Your task to perform on an android device: turn on javascript in the chrome app Image 0: 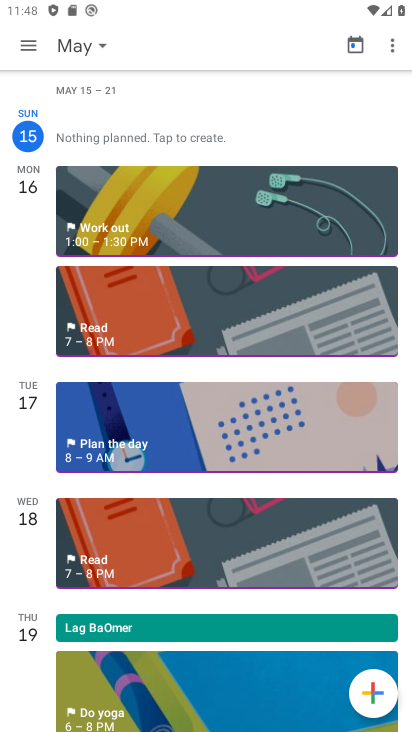
Step 0: press home button
Your task to perform on an android device: turn on javascript in the chrome app Image 1: 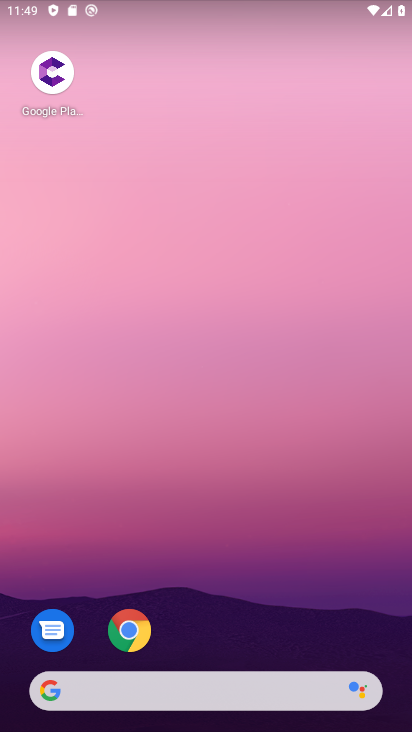
Step 1: click (135, 617)
Your task to perform on an android device: turn on javascript in the chrome app Image 2: 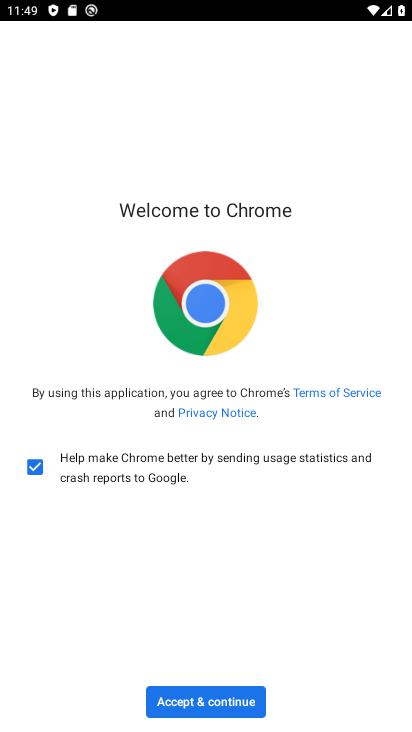
Step 2: click (240, 701)
Your task to perform on an android device: turn on javascript in the chrome app Image 3: 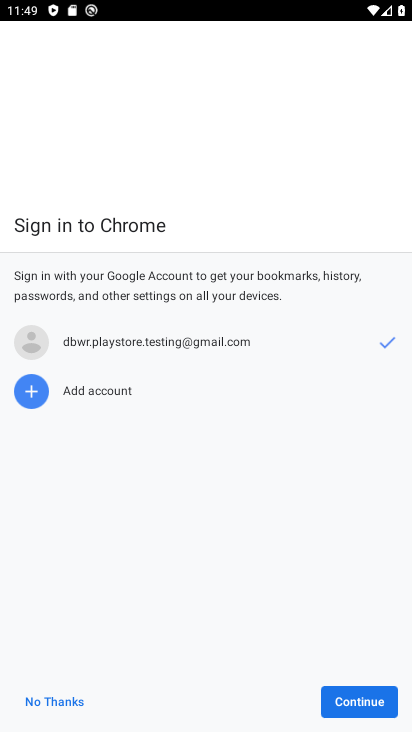
Step 3: click (361, 700)
Your task to perform on an android device: turn on javascript in the chrome app Image 4: 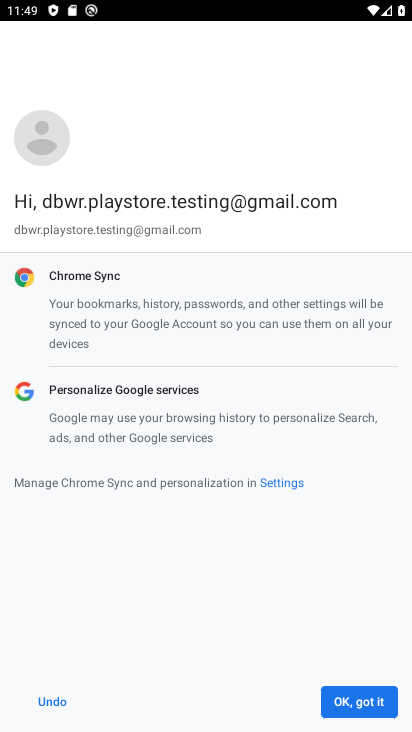
Step 4: click (361, 700)
Your task to perform on an android device: turn on javascript in the chrome app Image 5: 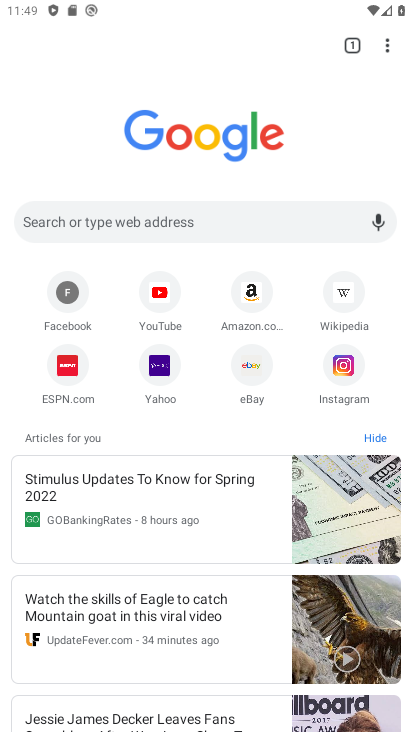
Step 5: click (388, 42)
Your task to perform on an android device: turn on javascript in the chrome app Image 6: 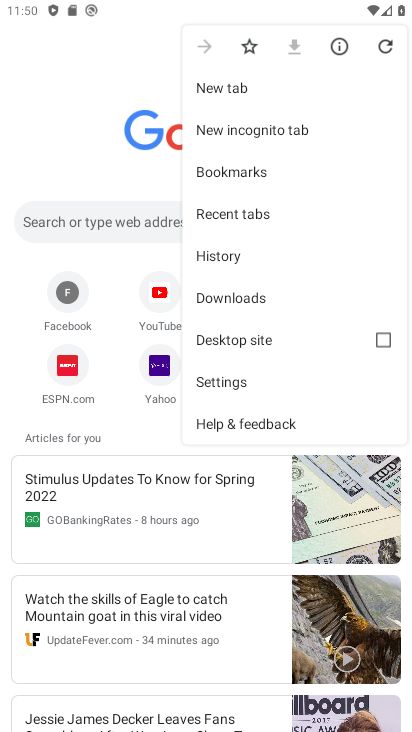
Step 6: drag from (290, 408) to (269, 128)
Your task to perform on an android device: turn on javascript in the chrome app Image 7: 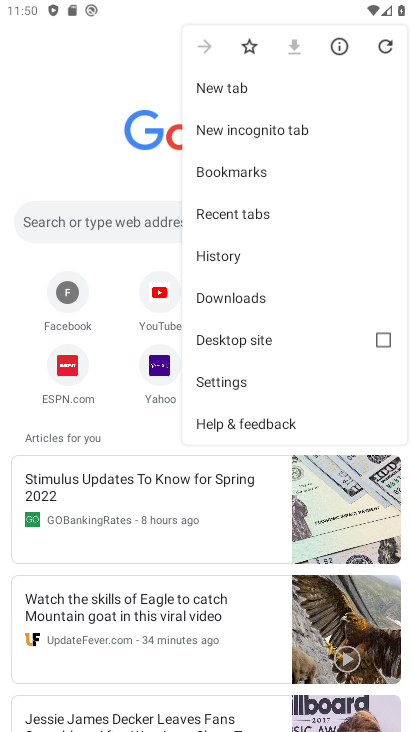
Step 7: click (248, 372)
Your task to perform on an android device: turn on javascript in the chrome app Image 8: 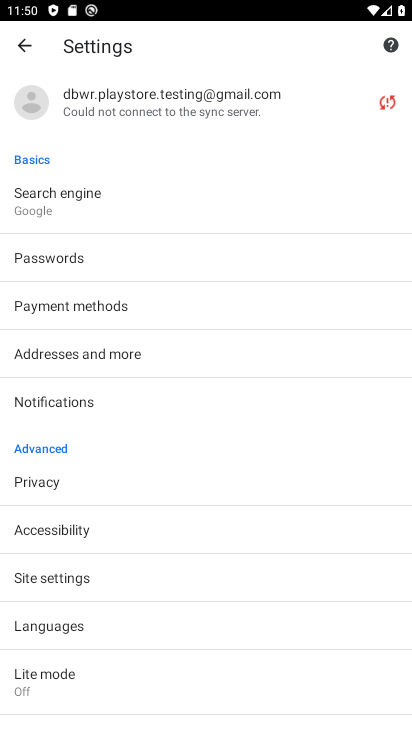
Step 8: click (222, 584)
Your task to perform on an android device: turn on javascript in the chrome app Image 9: 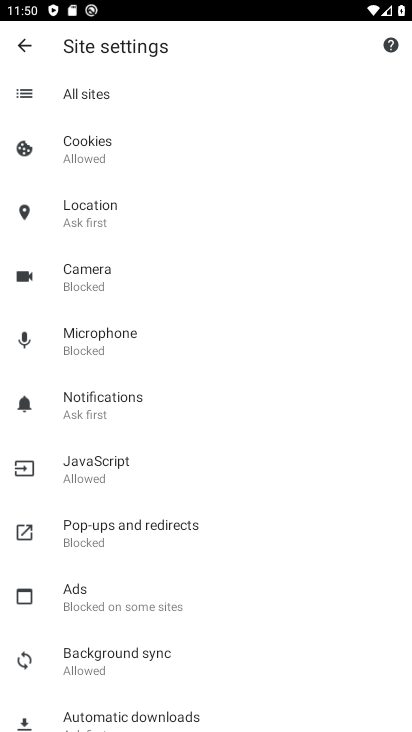
Step 9: click (209, 468)
Your task to perform on an android device: turn on javascript in the chrome app Image 10: 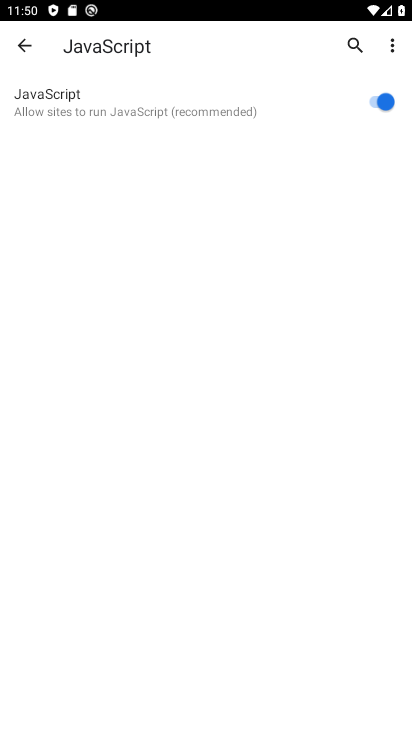
Step 10: task complete